Your task to perform on an android device: Open privacy settings Image 0: 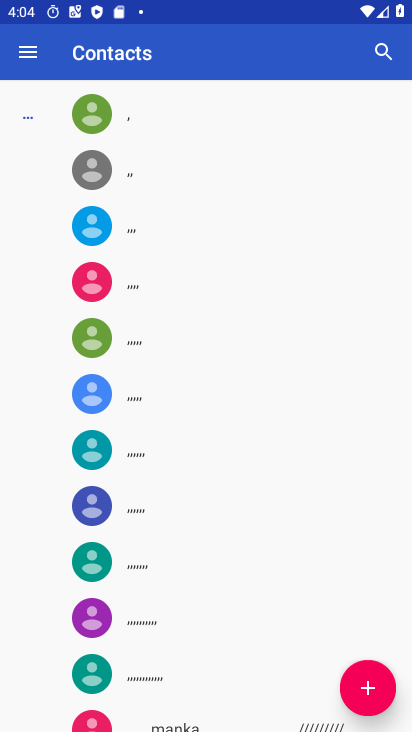
Step 0: press home button
Your task to perform on an android device: Open privacy settings Image 1: 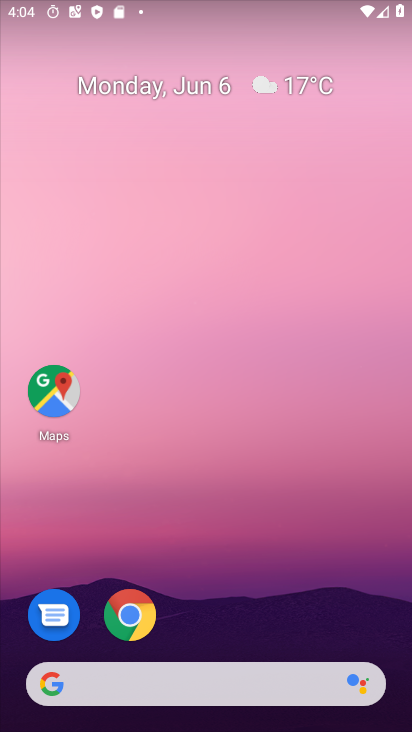
Step 1: drag from (237, 651) to (284, 52)
Your task to perform on an android device: Open privacy settings Image 2: 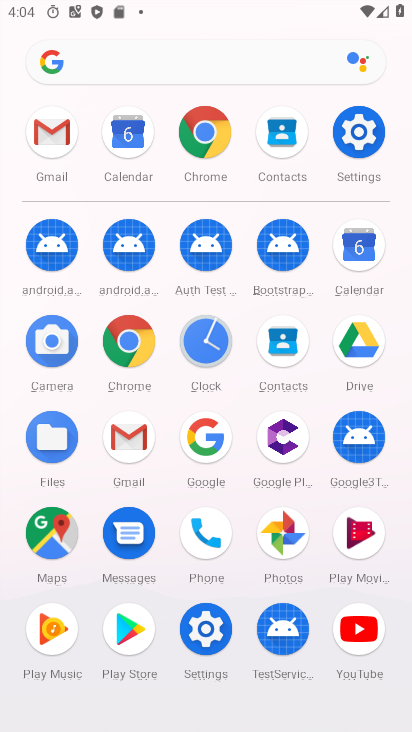
Step 2: click (364, 117)
Your task to perform on an android device: Open privacy settings Image 3: 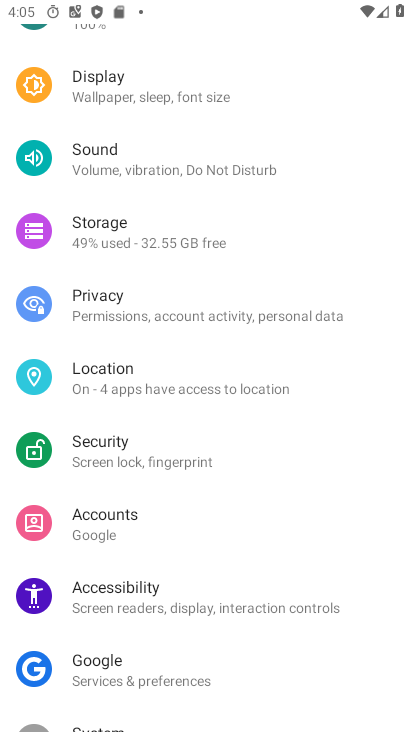
Step 3: drag from (185, 178) to (156, 687)
Your task to perform on an android device: Open privacy settings Image 4: 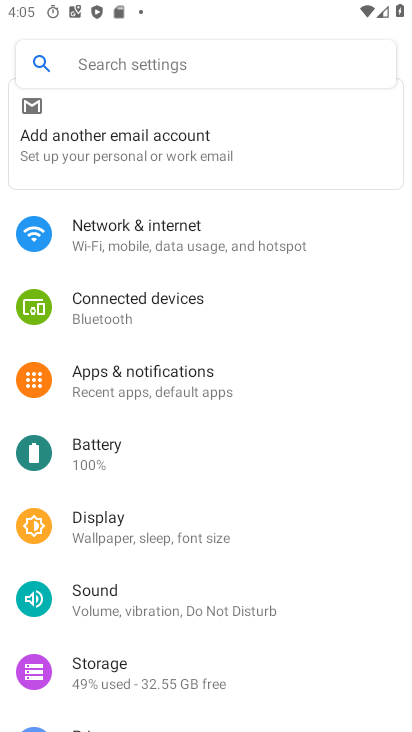
Step 4: drag from (183, 526) to (199, 385)
Your task to perform on an android device: Open privacy settings Image 5: 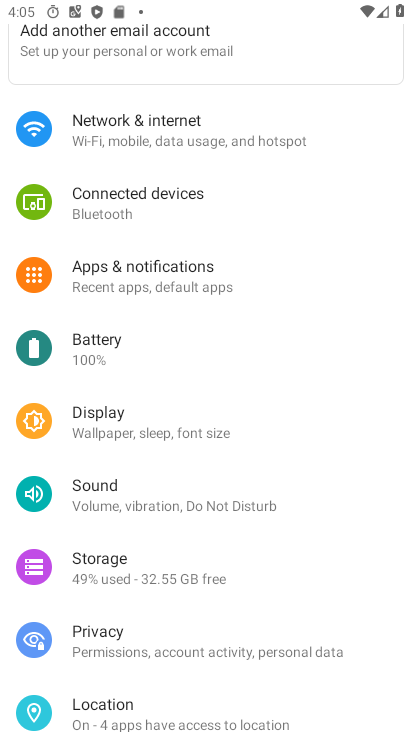
Step 5: click (150, 645)
Your task to perform on an android device: Open privacy settings Image 6: 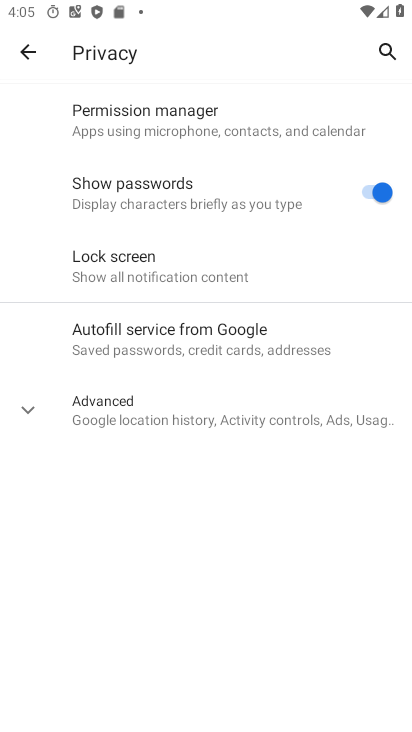
Step 6: task complete